Your task to perform on an android device: Show me popular games on the Play Store Image 0: 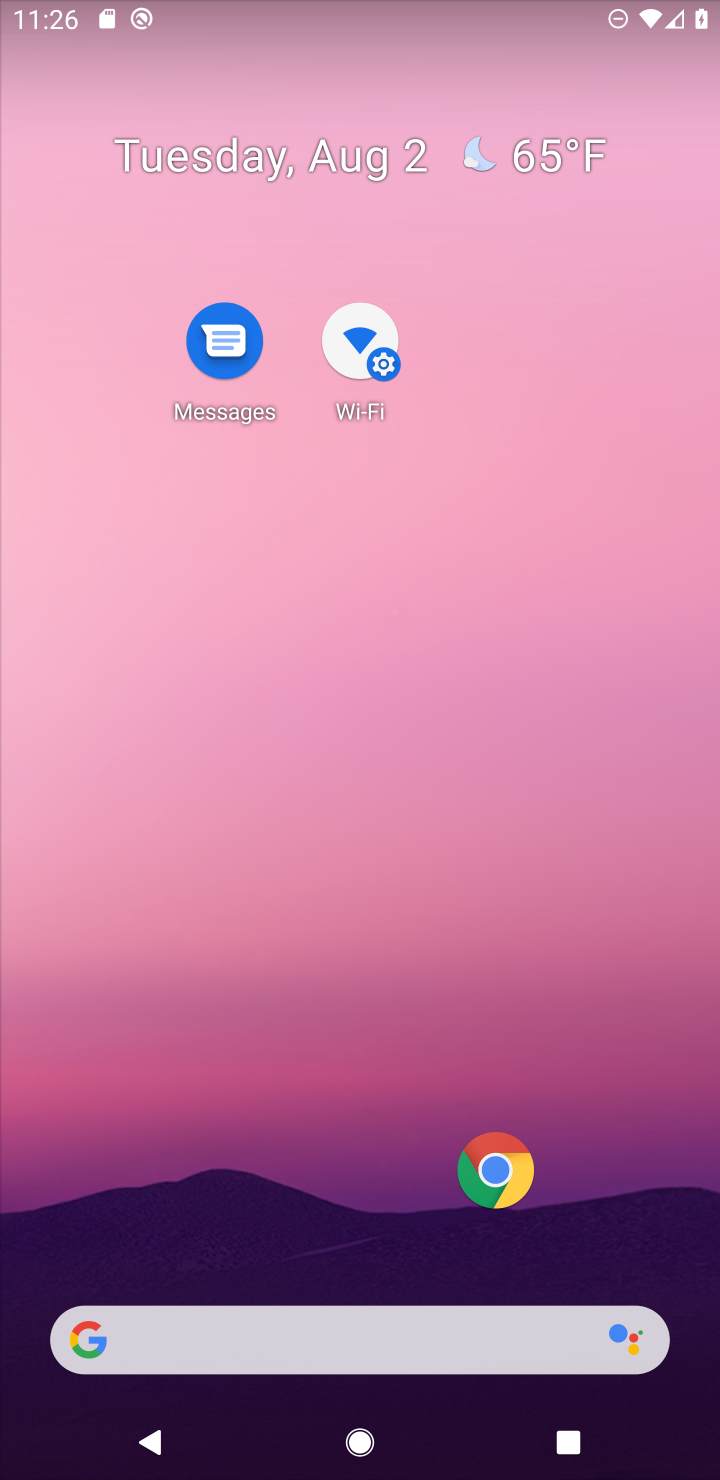
Step 0: drag from (361, 1004) to (384, 221)
Your task to perform on an android device: Show me popular games on the Play Store Image 1: 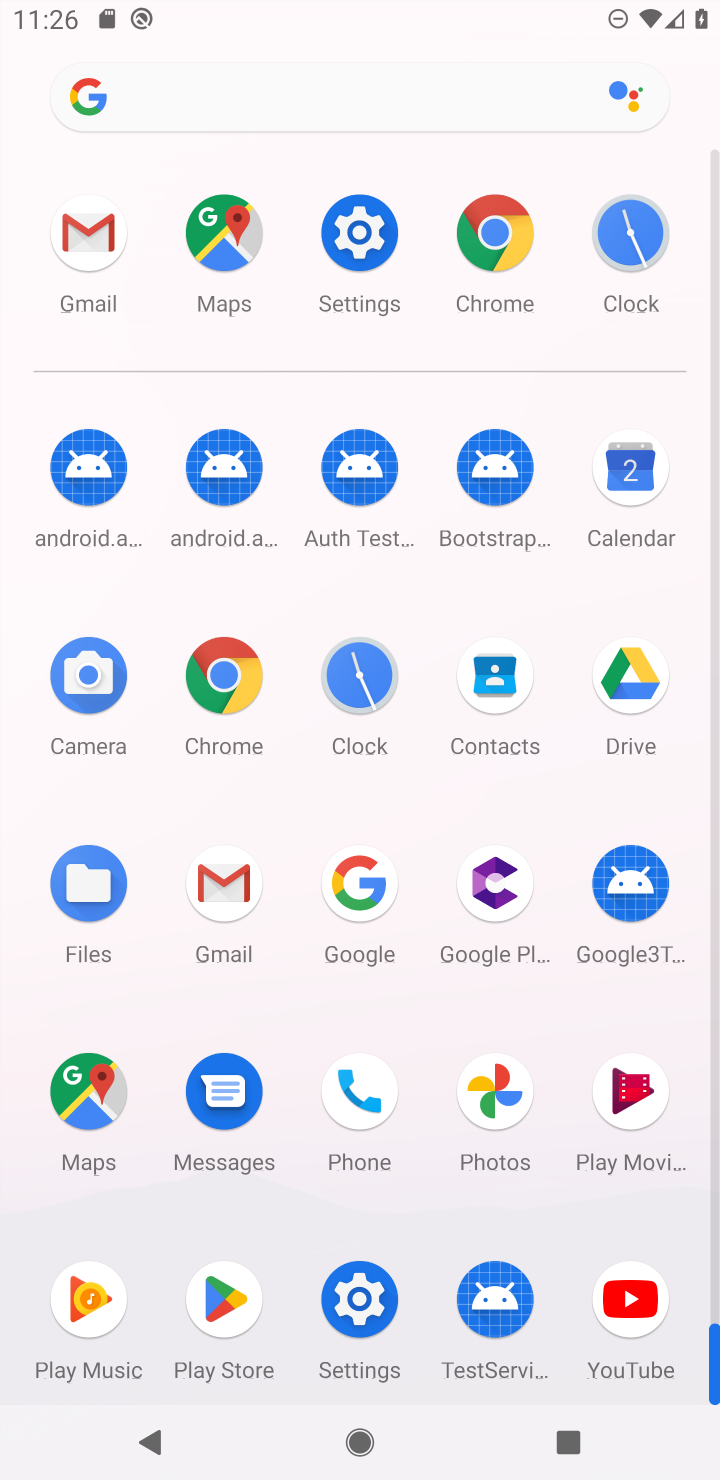
Step 1: click (215, 1300)
Your task to perform on an android device: Show me popular games on the Play Store Image 2: 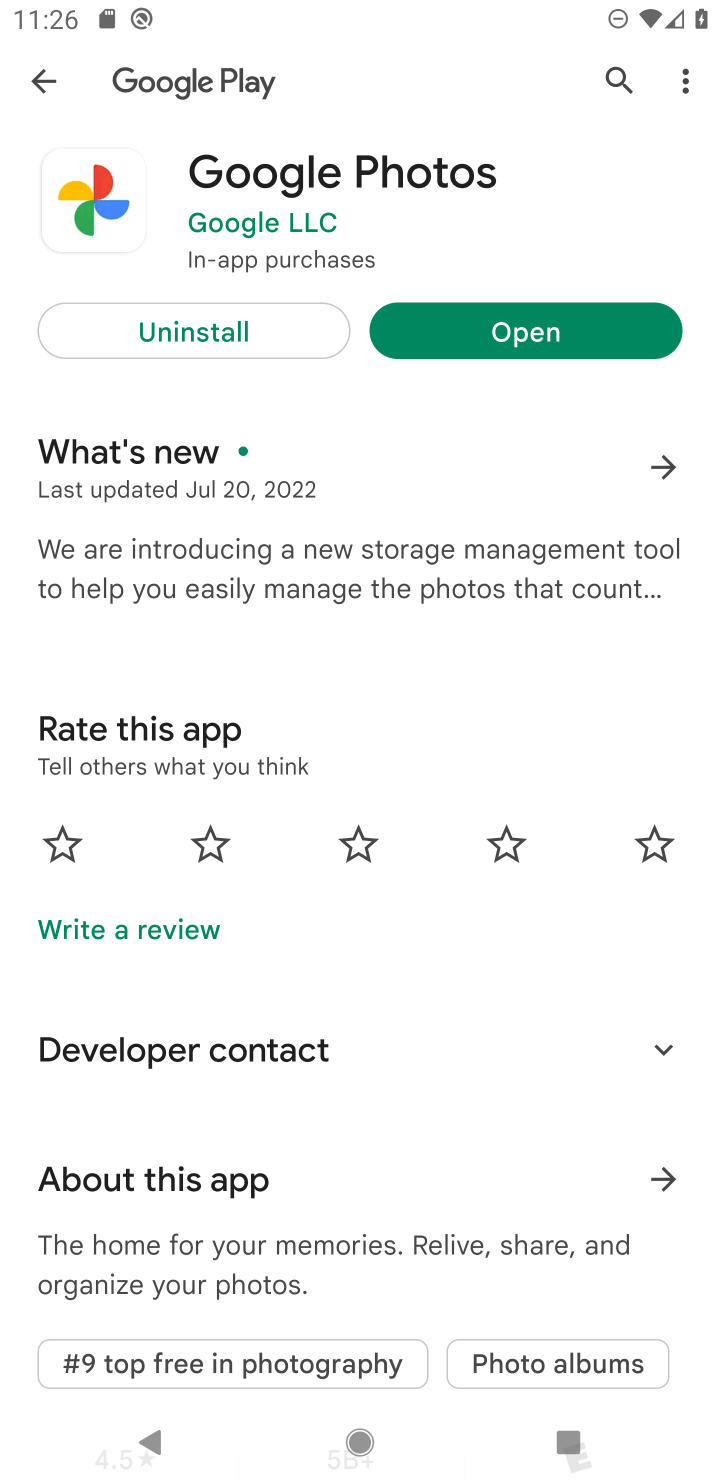
Step 2: drag from (265, 1163) to (461, 1468)
Your task to perform on an android device: Show me popular games on the Play Store Image 3: 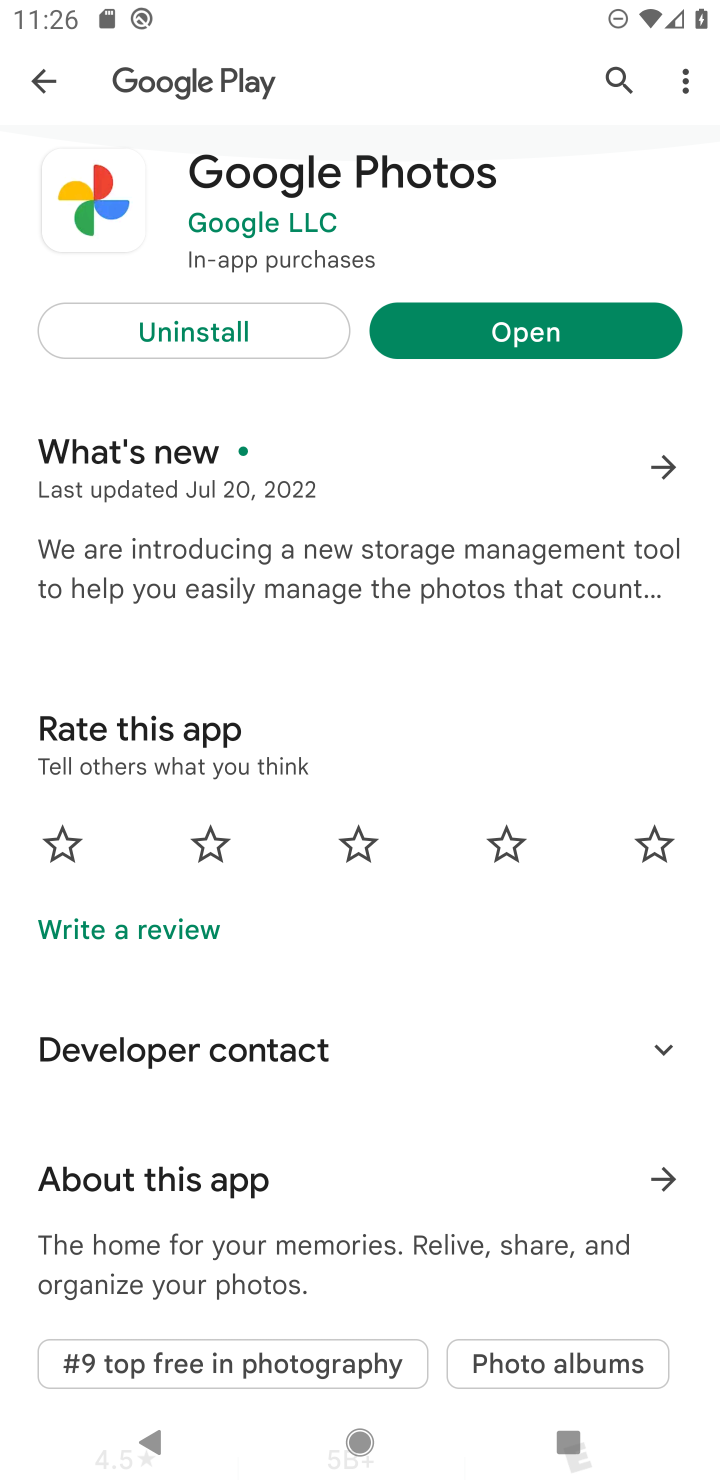
Step 3: drag from (433, 554) to (608, 1450)
Your task to perform on an android device: Show me popular games on the Play Store Image 4: 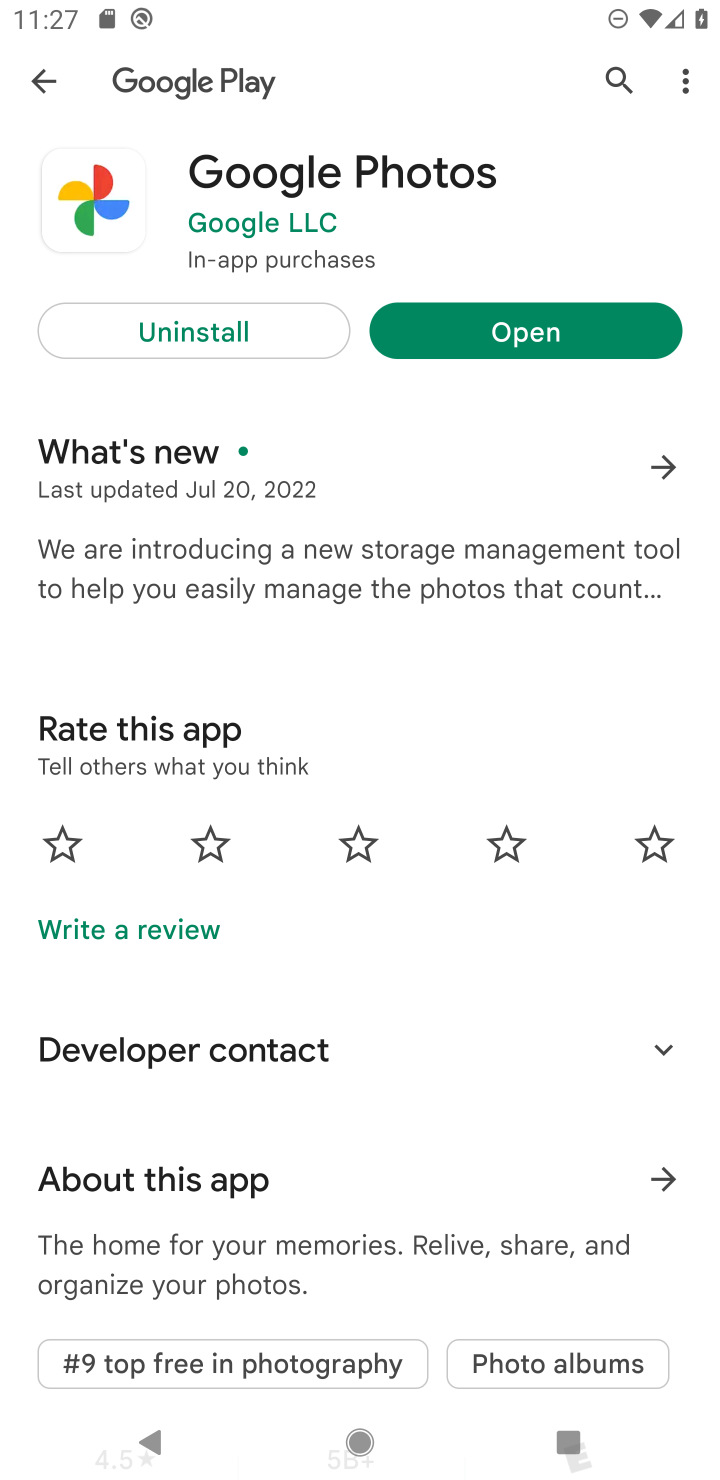
Step 4: drag from (334, 1068) to (439, 542)
Your task to perform on an android device: Show me popular games on the Play Store Image 5: 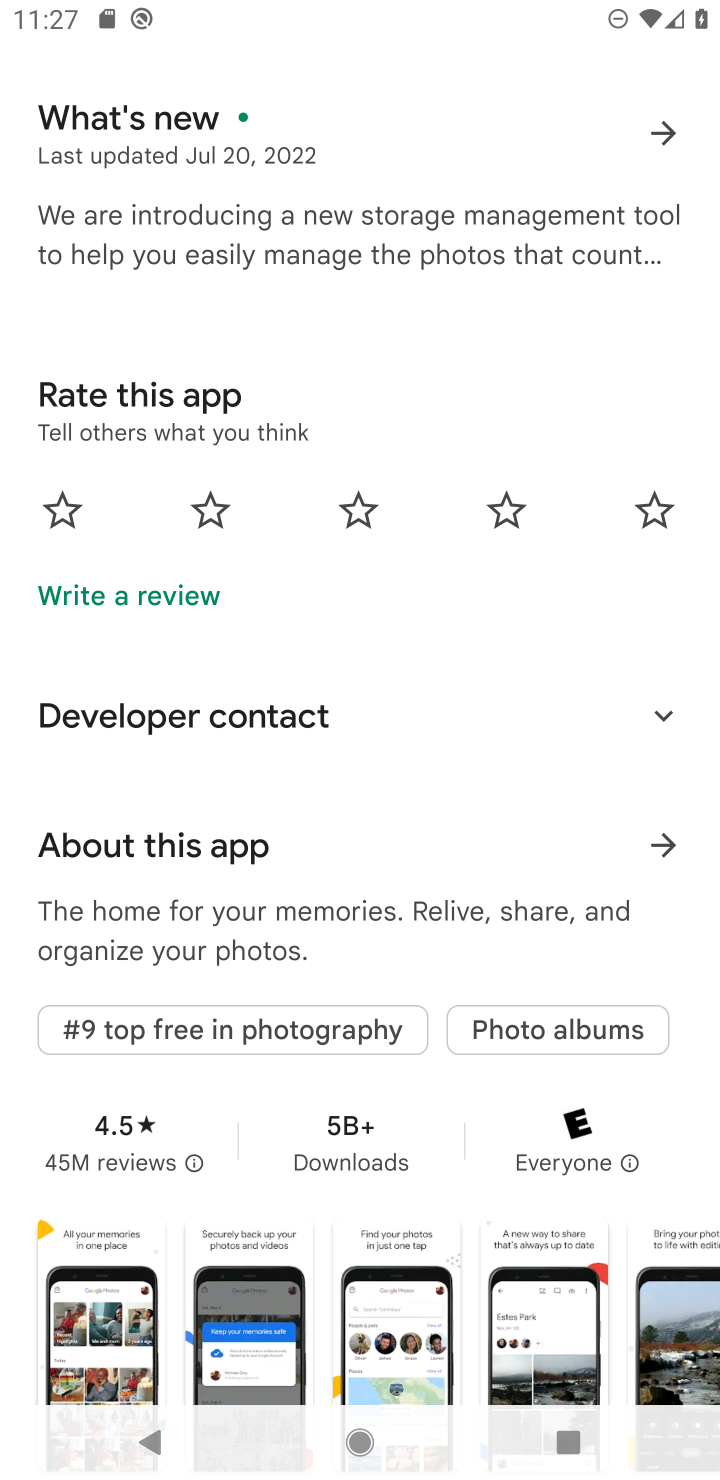
Step 5: drag from (362, 614) to (628, 1459)
Your task to perform on an android device: Show me popular games on the Play Store Image 6: 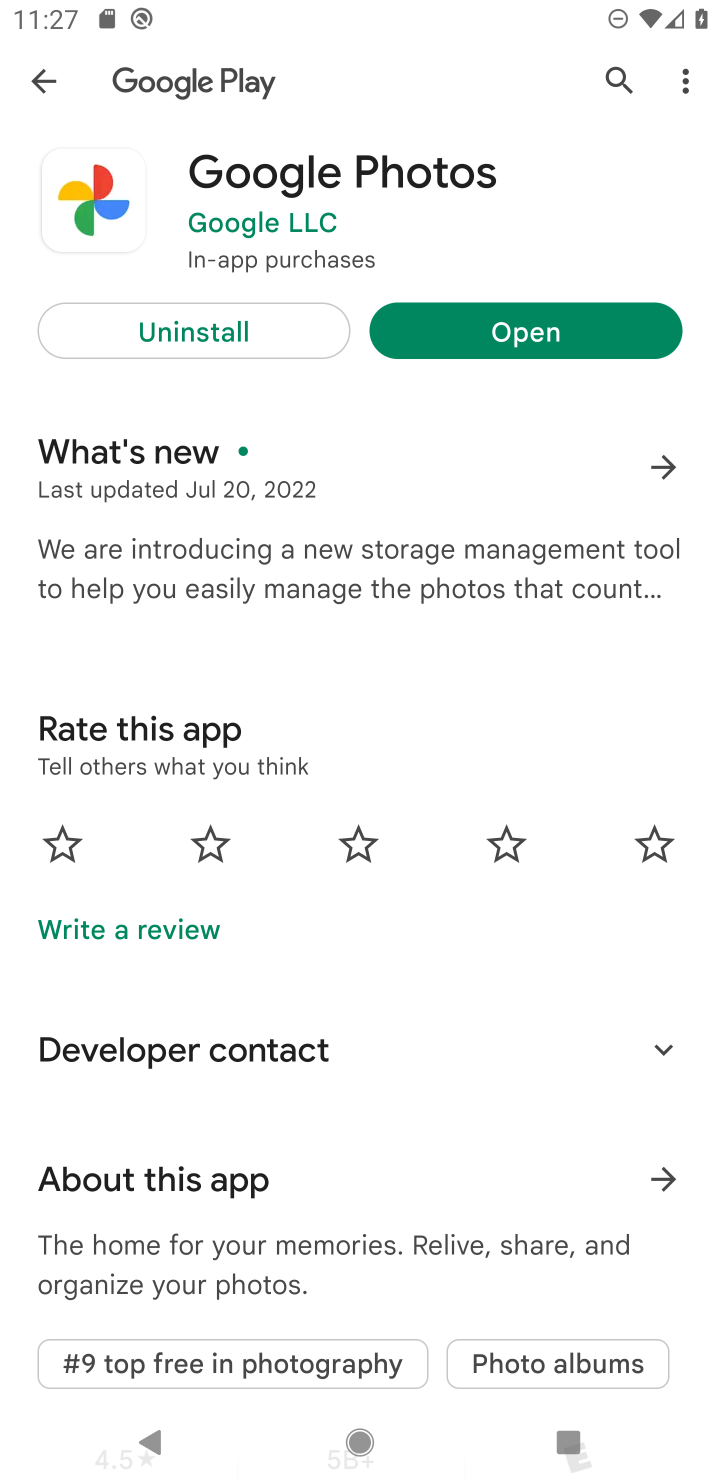
Step 6: drag from (307, 887) to (316, 1477)
Your task to perform on an android device: Show me popular games on the Play Store Image 7: 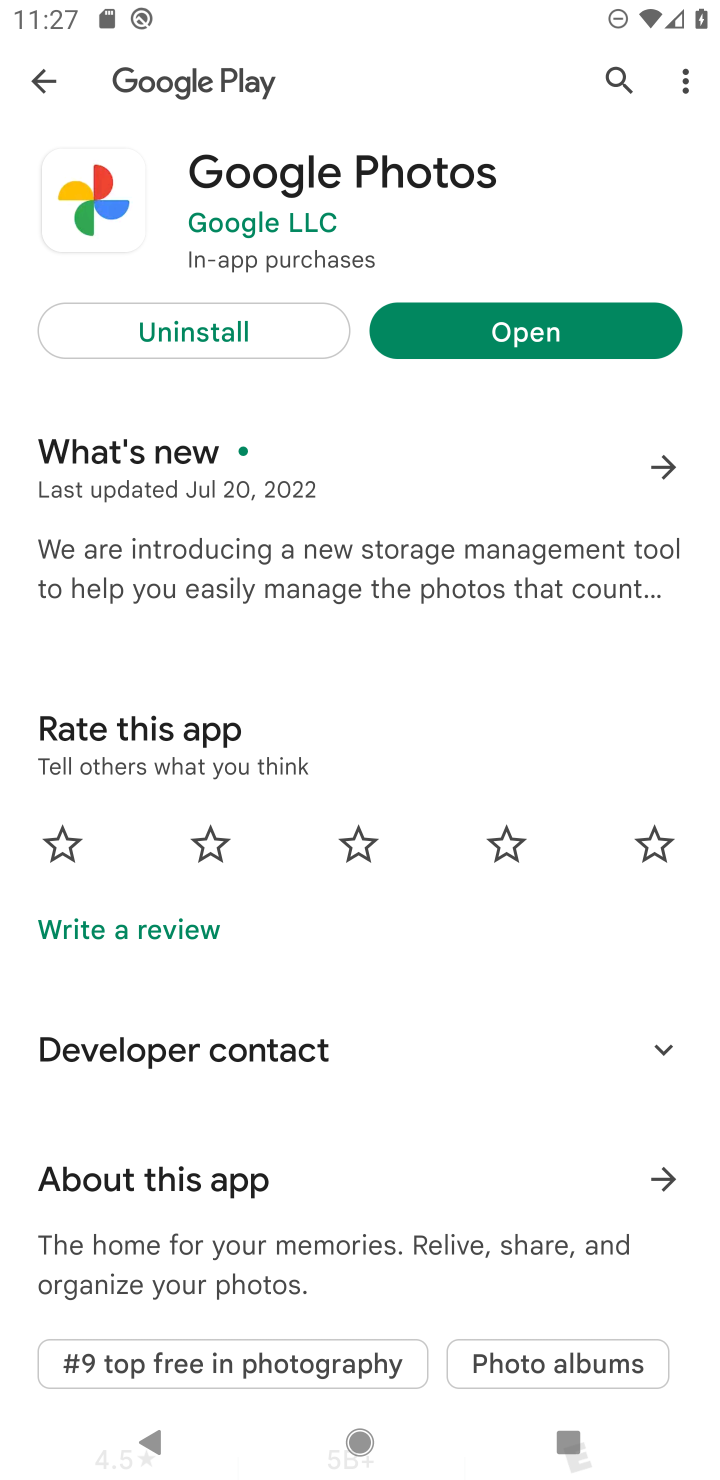
Step 7: press back button
Your task to perform on an android device: Show me popular games on the Play Store Image 8: 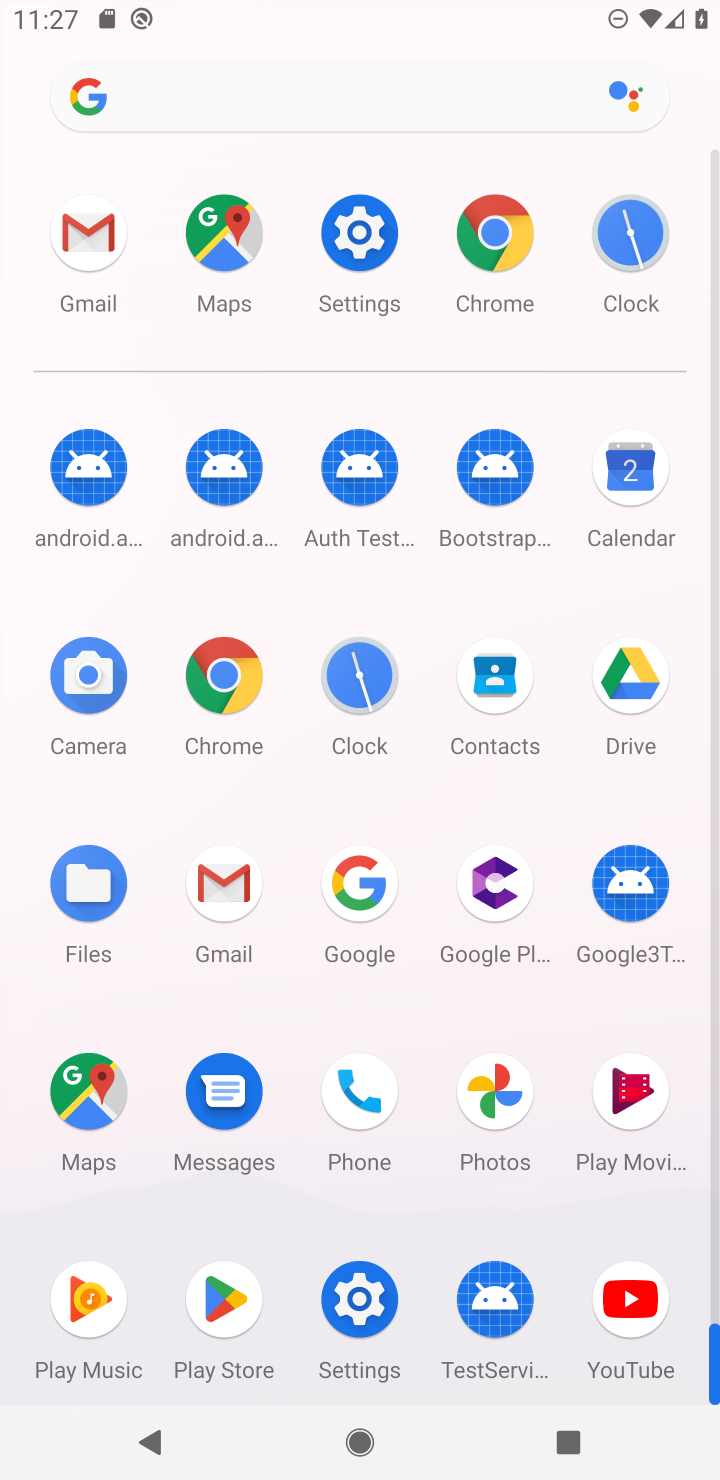
Step 8: drag from (399, 1158) to (572, 631)
Your task to perform on an android device: Show me popular games on the Play Store Image 9: 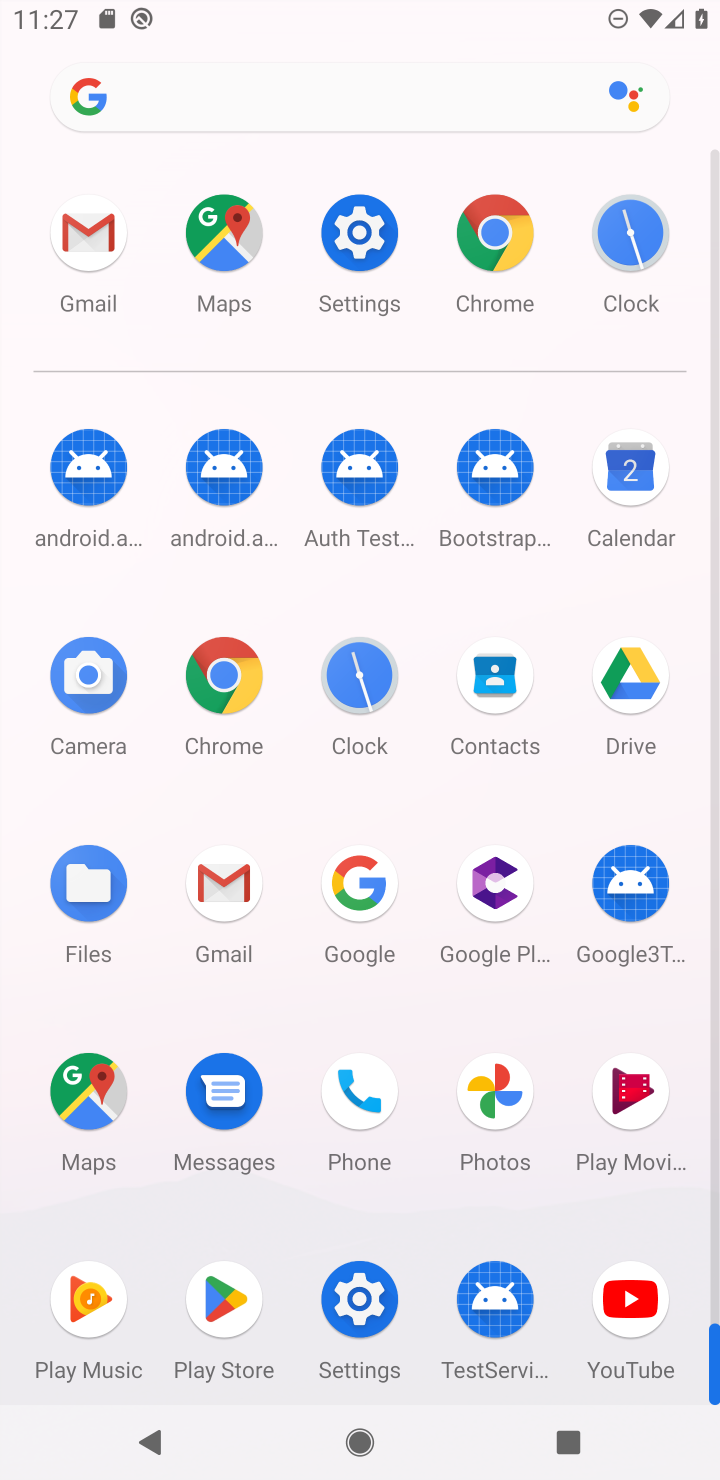
Step 9: click (212, 1307)
Your task to perform on an android device: Show me popular games on the Play Store Image 10: 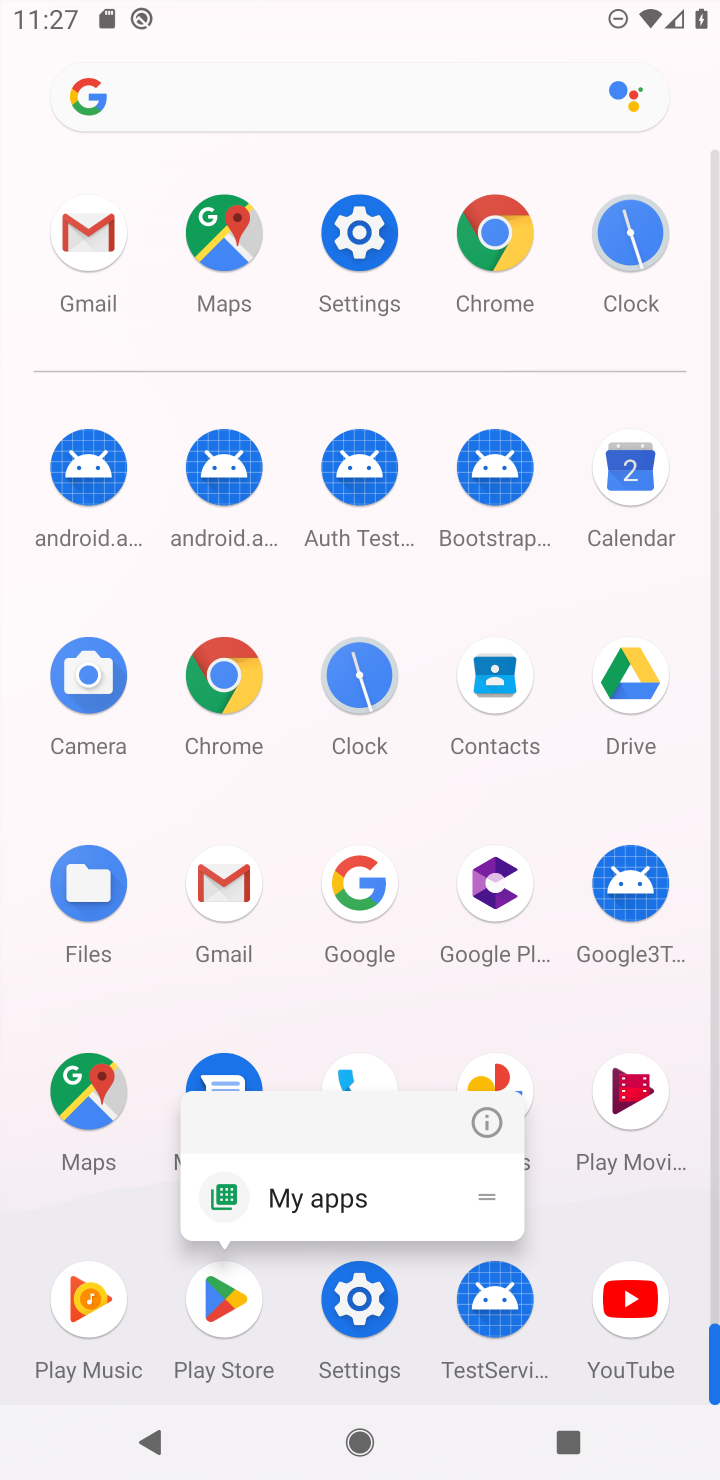
Step 10: click (492, 1133)
Your task to perform on an android device: Show me popular games on the Play Store Image 11: 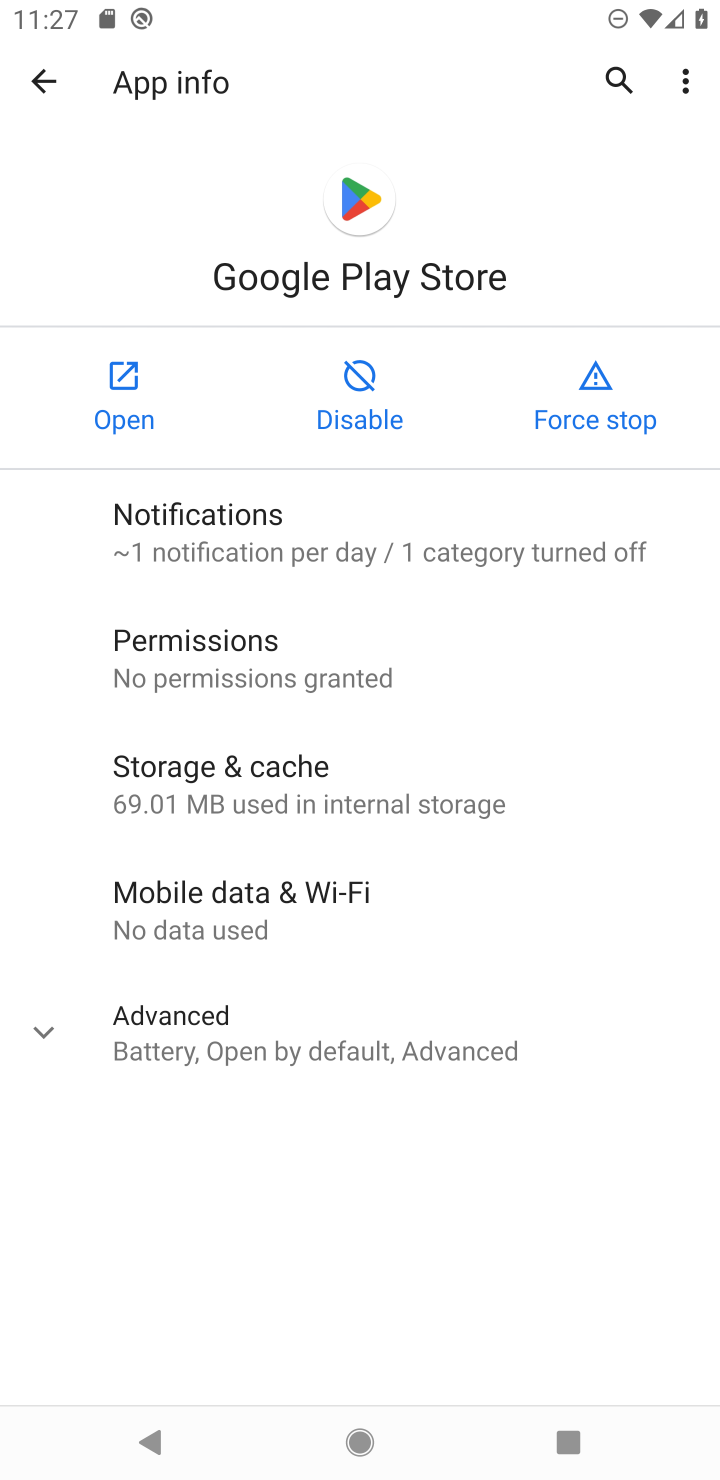
Step 11: click (102, 390)
Your task to perform on an android device: Show me popular games on the Play Store Image 12: 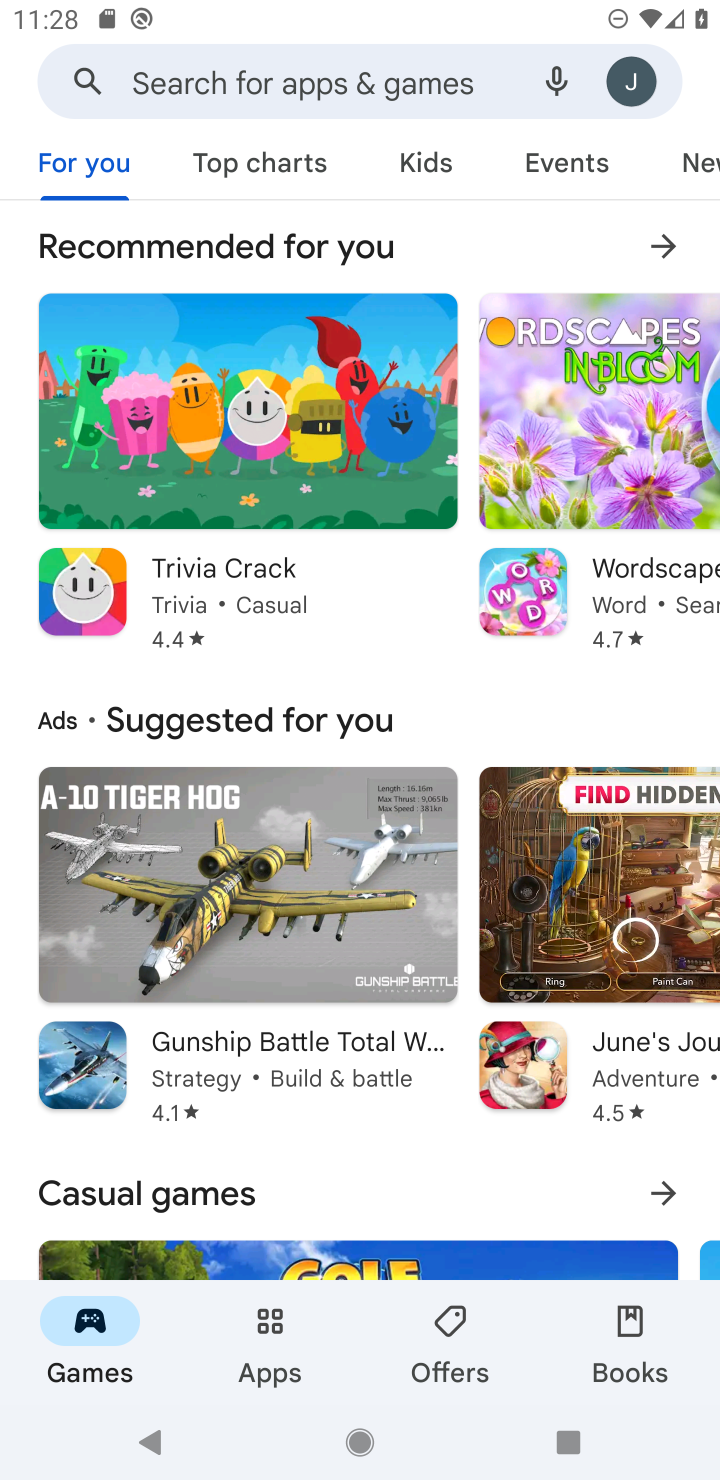
Step 12: task complete